Your task to perform on an android device: Go to CNN.com Image 0: 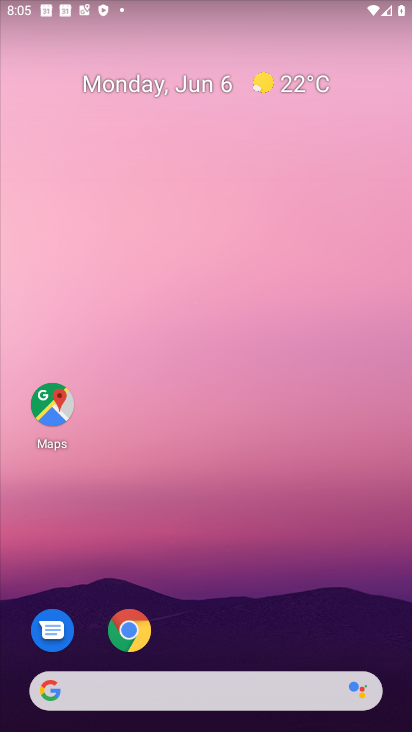
Step 0: click (178, 694)
Your task to perform on an android device: Go to CNN.com Image 1: 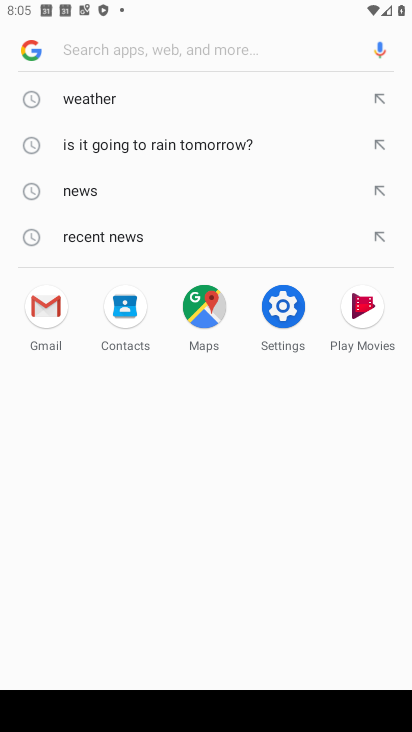
Step 1: type "cnn.com"
Your task to perform on an android device: Go to CNN.com Image 2: 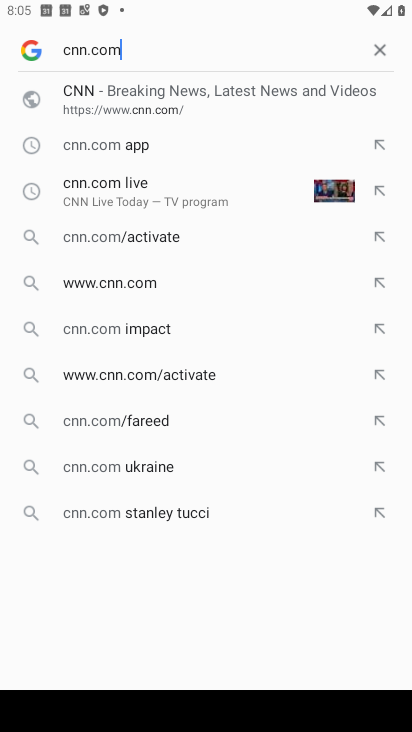
Step 2: click (137, 98)
Your task to perform on an android device: Go to CNN.com Image 3: 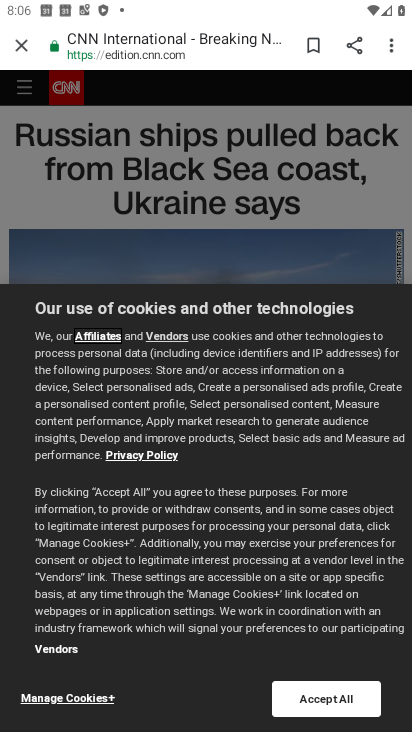
Step 3: click (326, 705)
Your task to perform on an android device: Go to CNN.com Image 4: 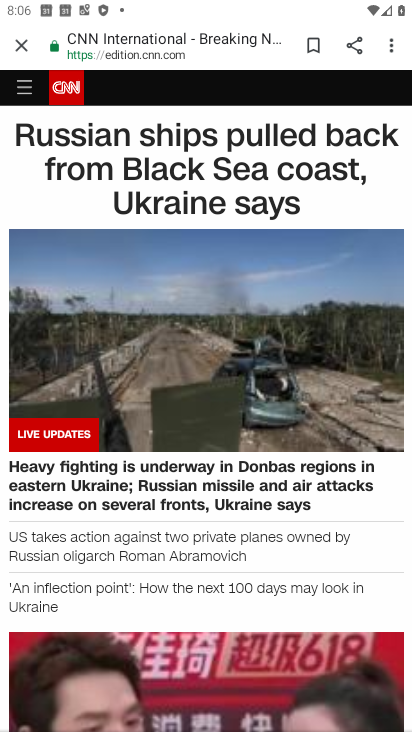
Step 4: task complete